Your task to perform on an android device: Go to accessibility settings Image 0: 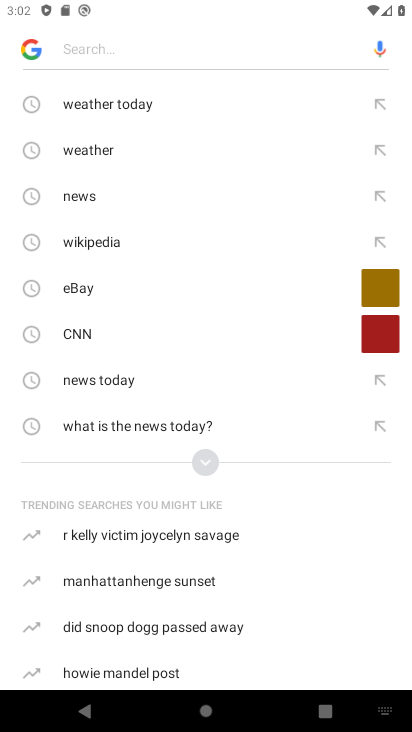
Step 0: press home button
Your task to perform on an android device: Go to accessibility settings Image 1: 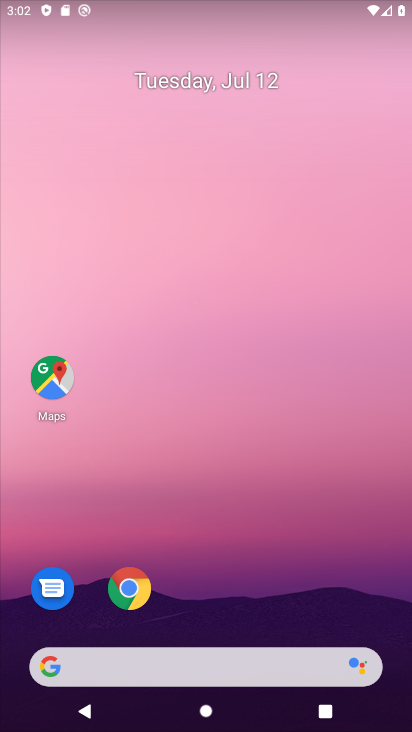
Step 1: drag from (390, 621) to (258, 163)
Your task to perform on an android device: Go to accessibility settings Image 2: 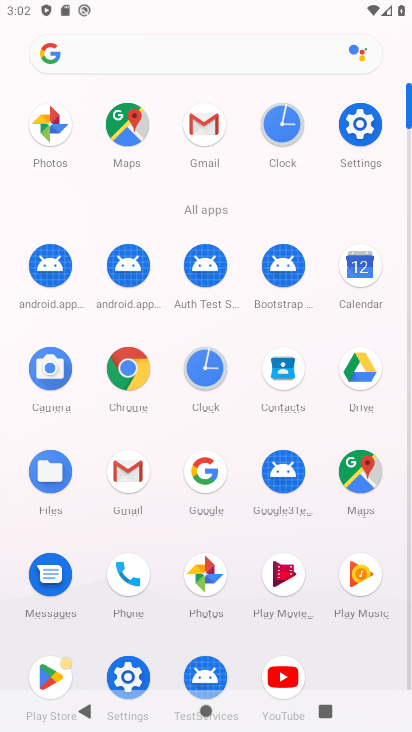
Step 2: click (357, 130)
Your task to perform on an android device: Go to accessibility settings Image 3: 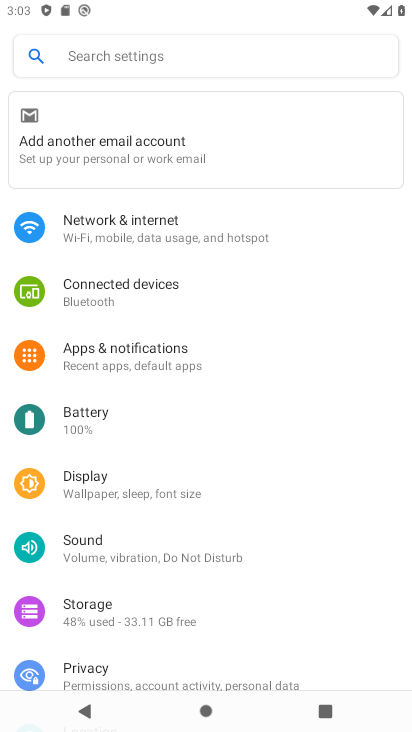
Step 3: drag from (189, 631) to (167, 230)
Your task to perform on an android device: Go to accessibility settings Image 4: 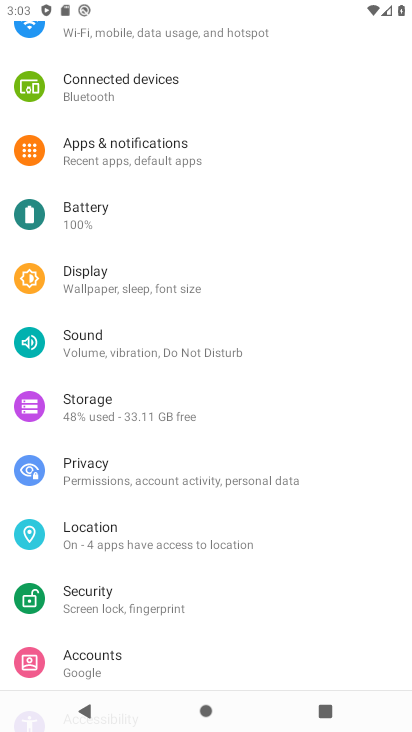
Step 4: drag from (217, 660) to (188, 405)
Your task to perform on an android device: Go to accessibility settings Image 5: 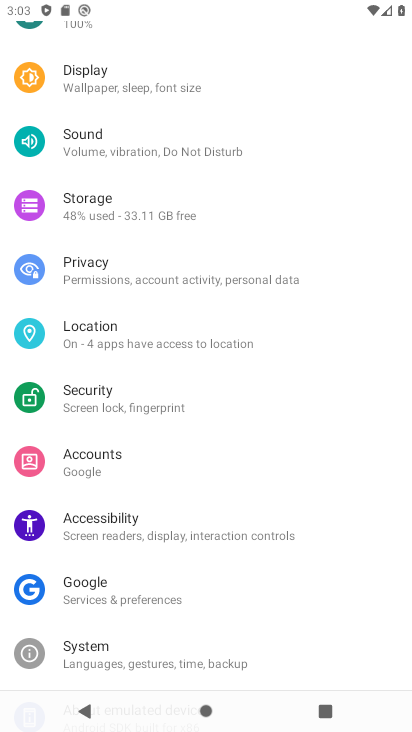
Step 5: click (185, 521)
Your task to perform on an android device: Go to accessibility settings Image 6: 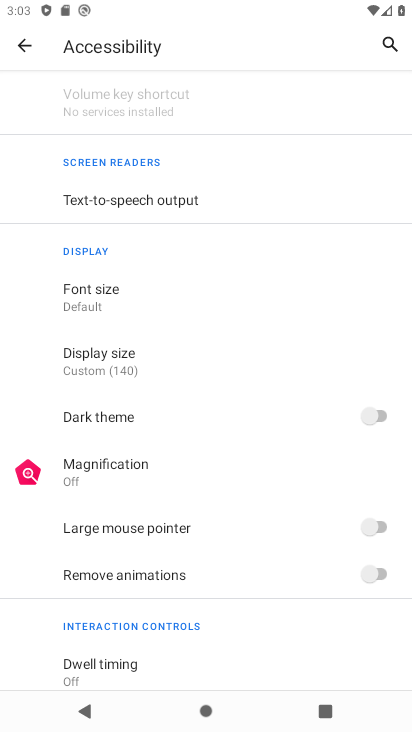
Step 6: task complete